Your task to perform on an android device: Do I have any events this weekend? Image 0: 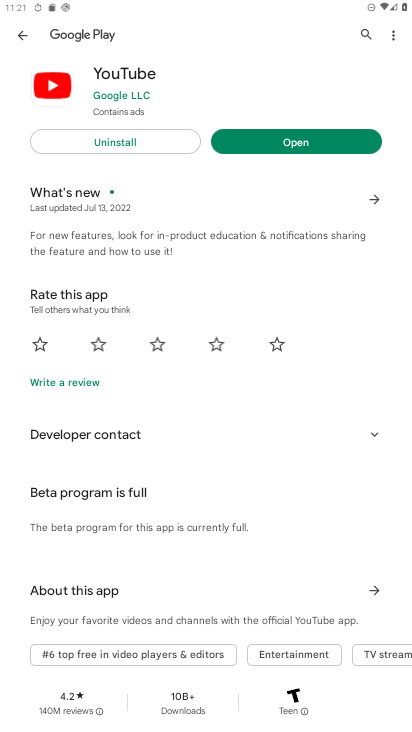
Step 0: press home button
Your task to perform on an android device: Do I have any events this weekend? Image 1: 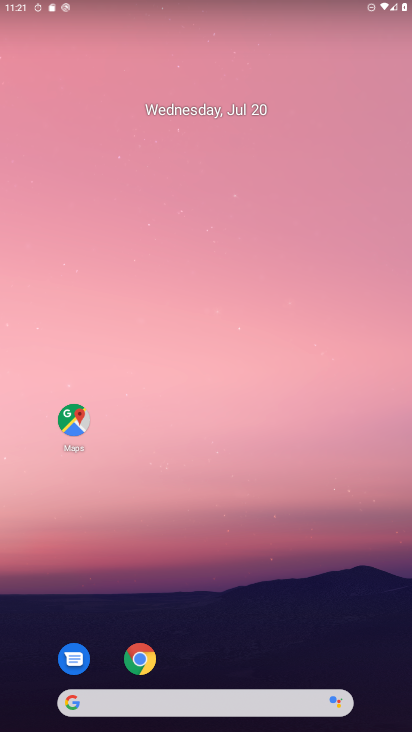
Step 1: drag from (283, 585) to (225, 32)
Your task to perform on an android device: Do I have any events this weekend? Image 2: 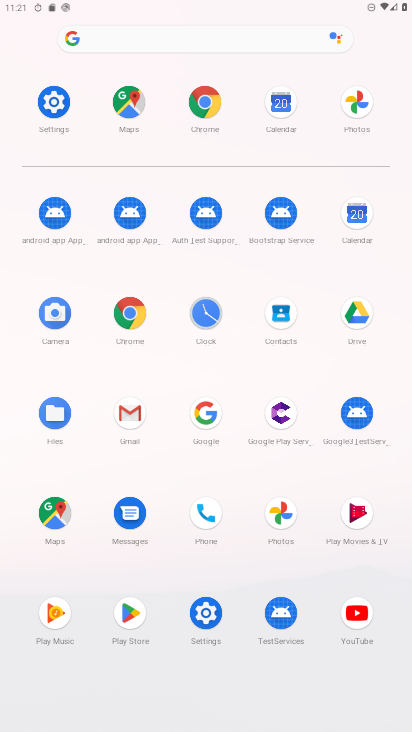
Step 2: click (358, 206)
Your task to perform on an android device: Do I have any events this weekend? Image 3: 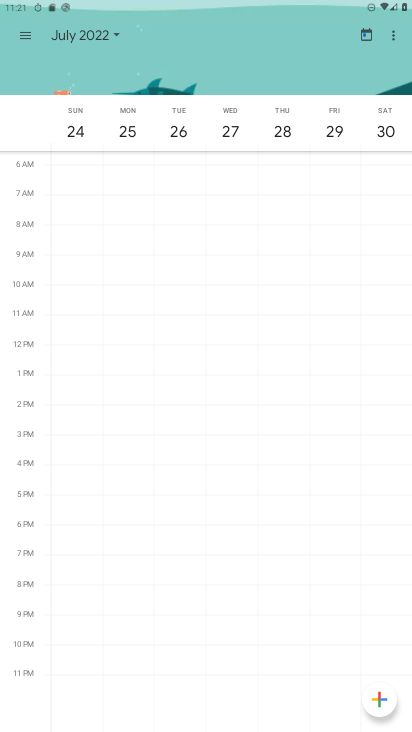
Step 3: drag from (84, 117) to (360, 142)
Your task to perform on an android device: Do I have any events this weekend? Image 4: 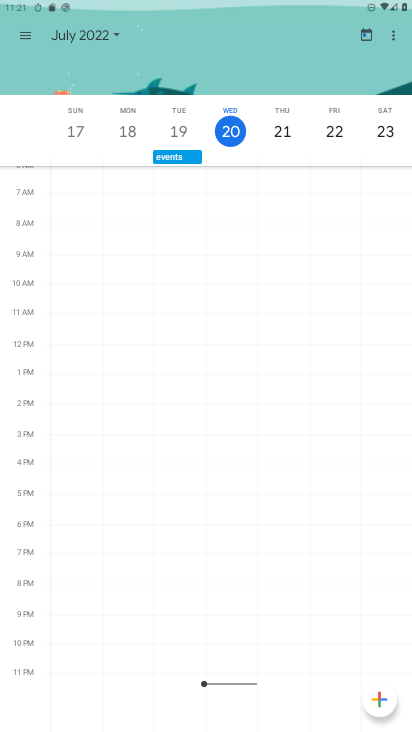
Step 4: click (337, 129)
Your task to perform on an android device: Do I have any events this weekend? Image 5: 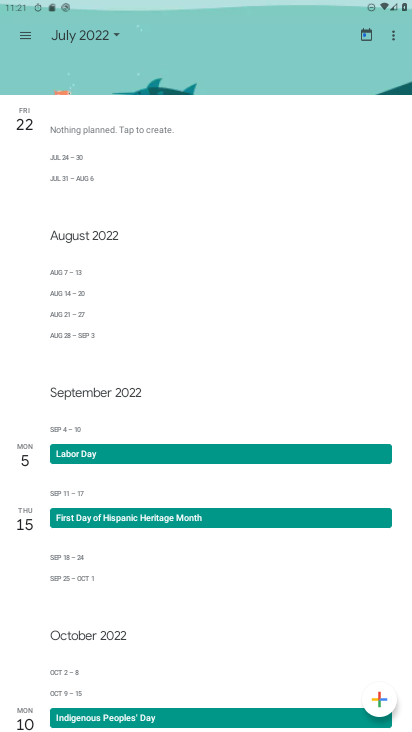
Step 5: click (21, 32)
Your task to perform on an android device: Do I have any events this weekend? Image 6: 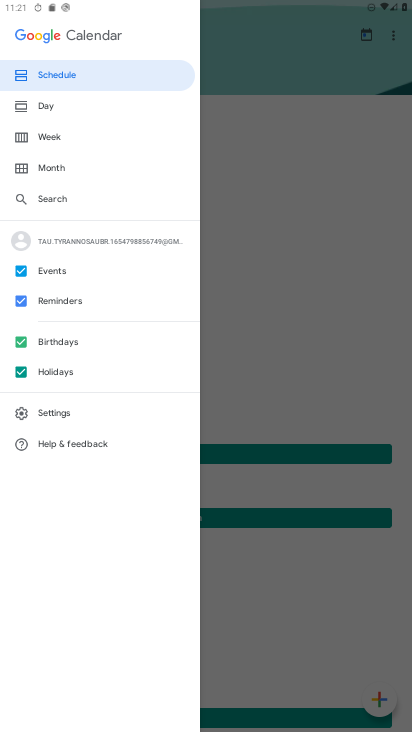
Step 6: click (291, 180)
Your task to perform on an android device: Do I have any events this weekend? Image 7: 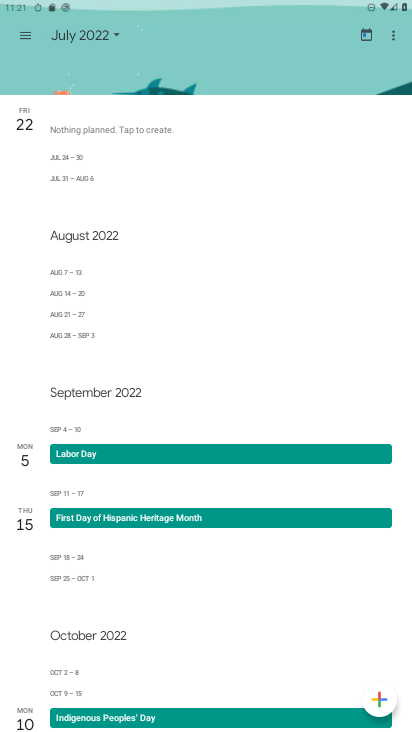
Step 7: task complete